Your task to perform on an android device: Open accessibility settings Image 0: 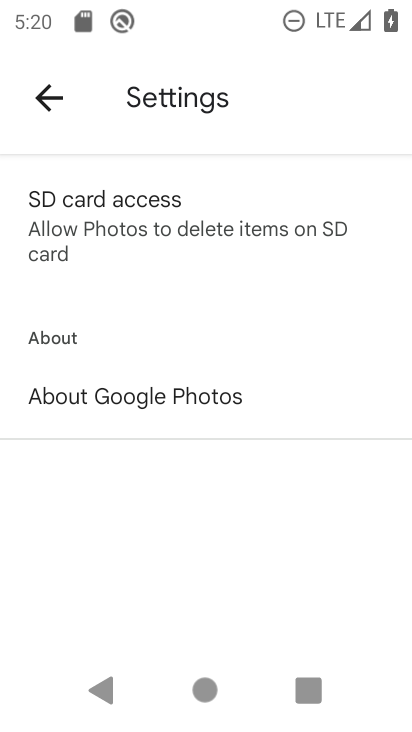
Step 0: press home button
Your task to perform on an android device: Open accessibility settings Image 1: 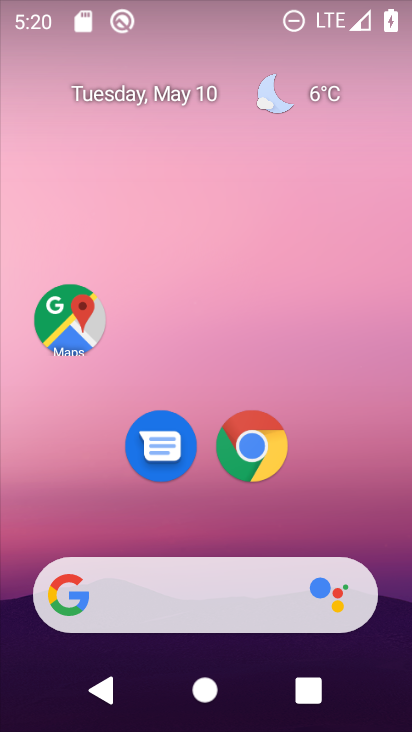
Step 1: drag from (264, 512) to (256, 154)
Your task to perform on an android device: Open accessibility settings Image 2: 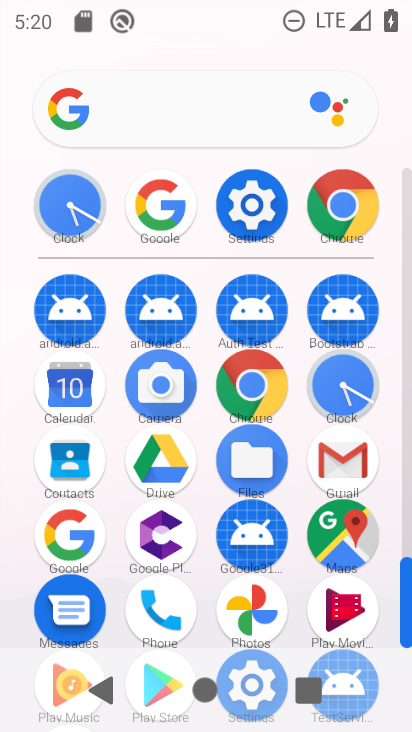
Step 2: click (249, 213)
Your task to perform on an android device: Open accessibility settings Image 3: 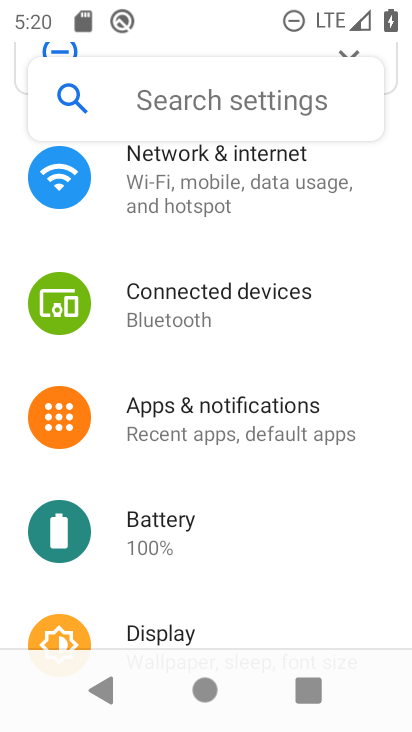
Step 3: drag from (220, 559) to (215, 191)
Your task to perform on an android device: Open accessibility settings Image 4: 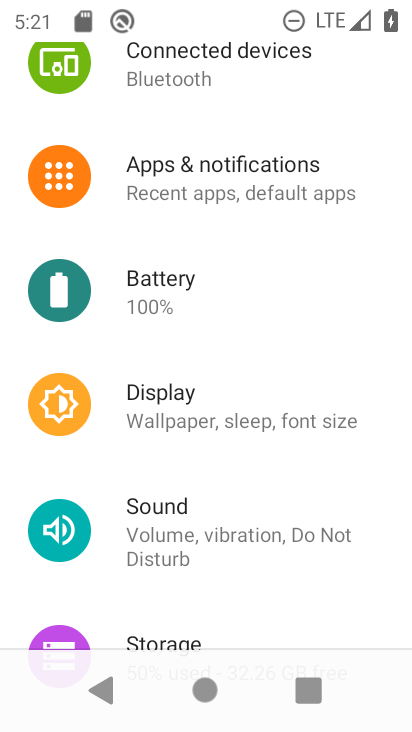
Step 4: drag from (244, 564) to (268, 180)
Your task to perform on an android device: Open accessibility settings Image 5: 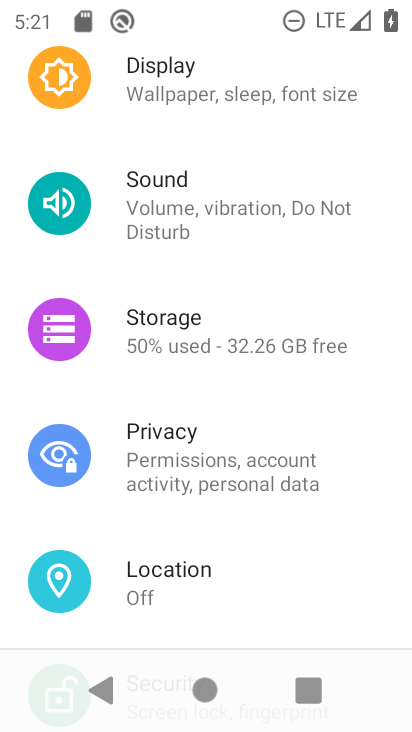
Step 5: drag from (203, 553) to (233, 178)
Your task to perform on an android device: Open accessibility settings Image 6: 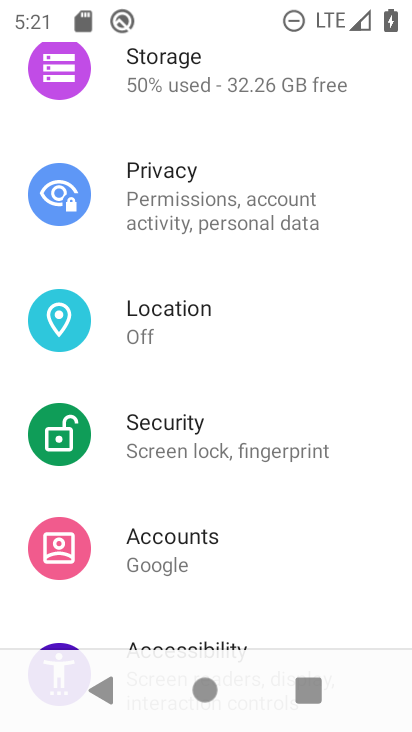
Step 6: drag from (183, 543) to (213, 188)
Your task to perform on an android device: Open accessibility settings Image 7: 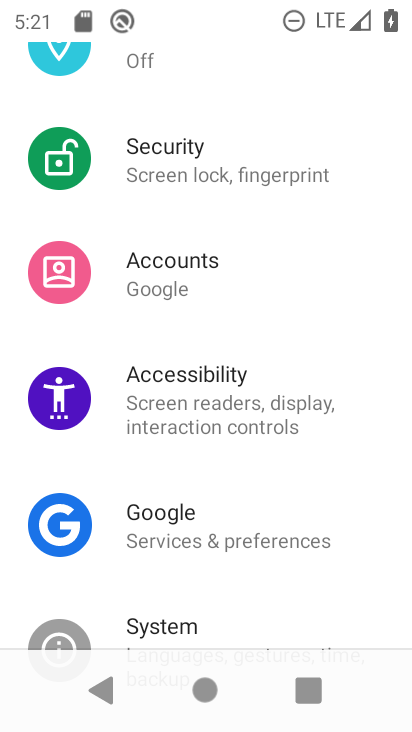
Step 7: click (184, 397)
Your task to perform on an android device: Open accessibility settings Image 8: 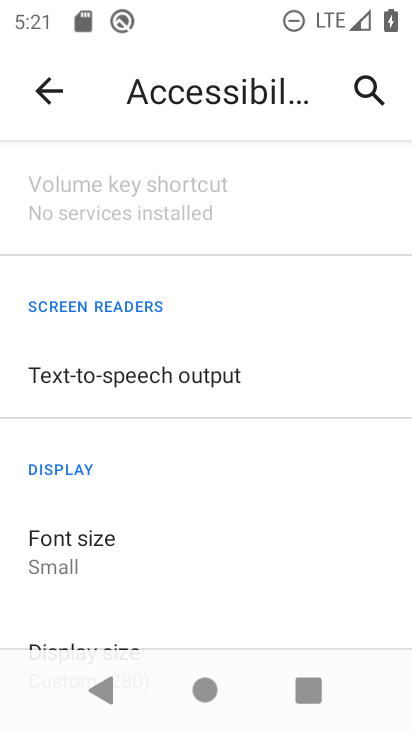
Step 8: task complete